Your task to perform on an android device: Search for usb-c to usb-a on newegg.com, select the first entry, add it to the cart, then select checkout. Image 0: 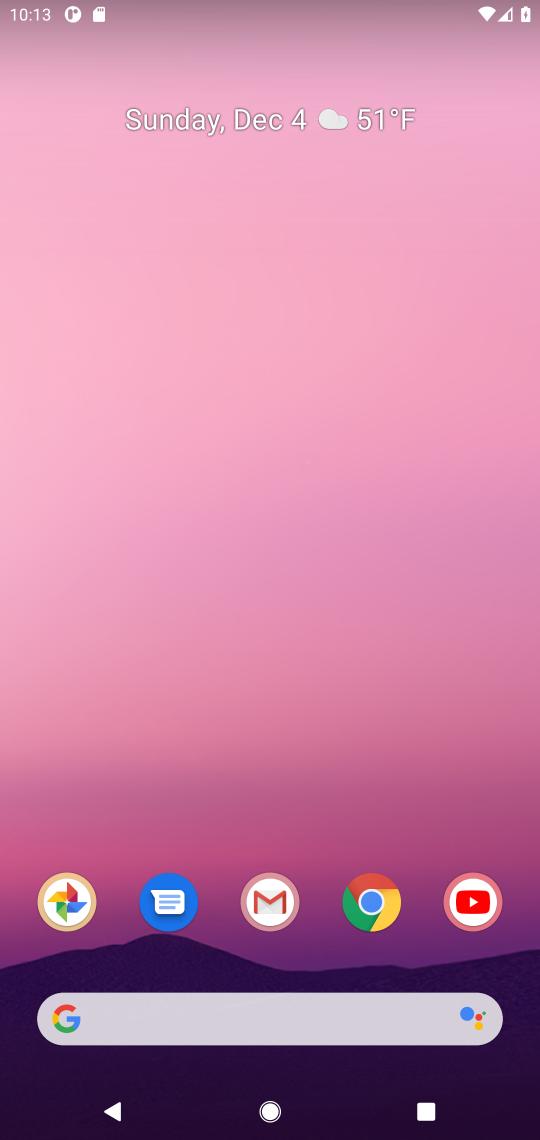
Step 0: click (370, 912)
Your task to perform on an android device: Search for usb-c to usb-a on newegg.com, select the first entry, add it to the cart, then select checkout. Image 1: 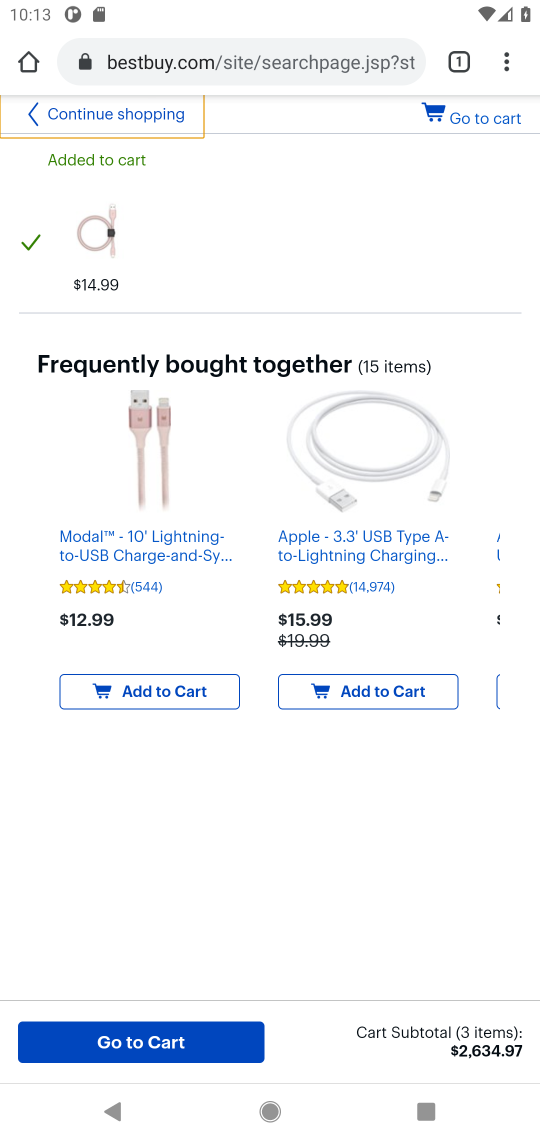
Step 1: click (257, 55)
Your task to perform on an android device: Search for usb-c to usb-a on newegg.com, select the first entry, add it to the cart, then select checkout. Image 2: 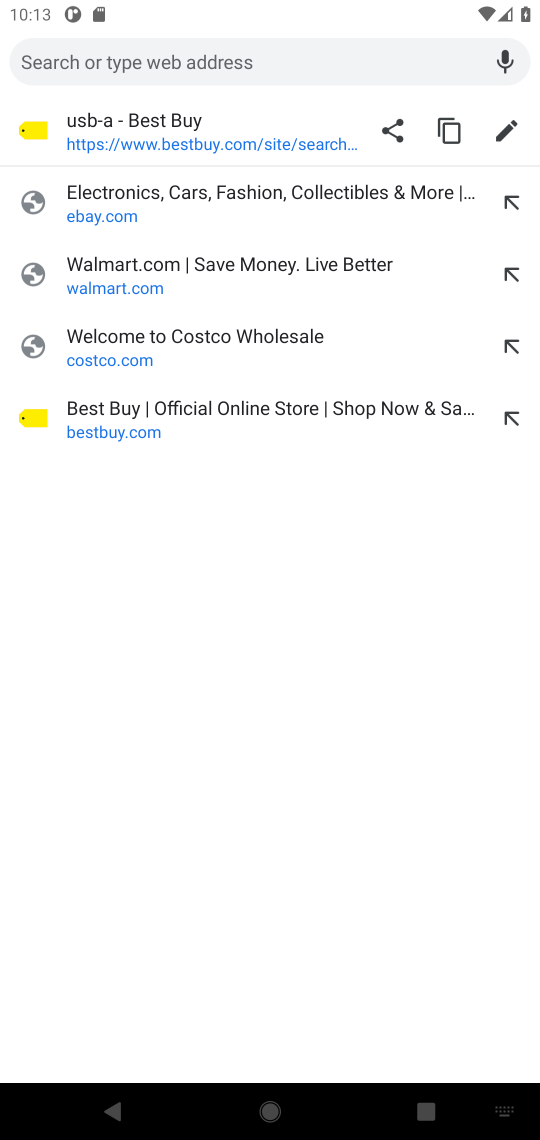
Step 2: type "neweeg"
Your task to perform on an android device: Search for usb-c to usb-a on newegg.com, select the first entry, add it to the cart, then select checkout. Image 3: 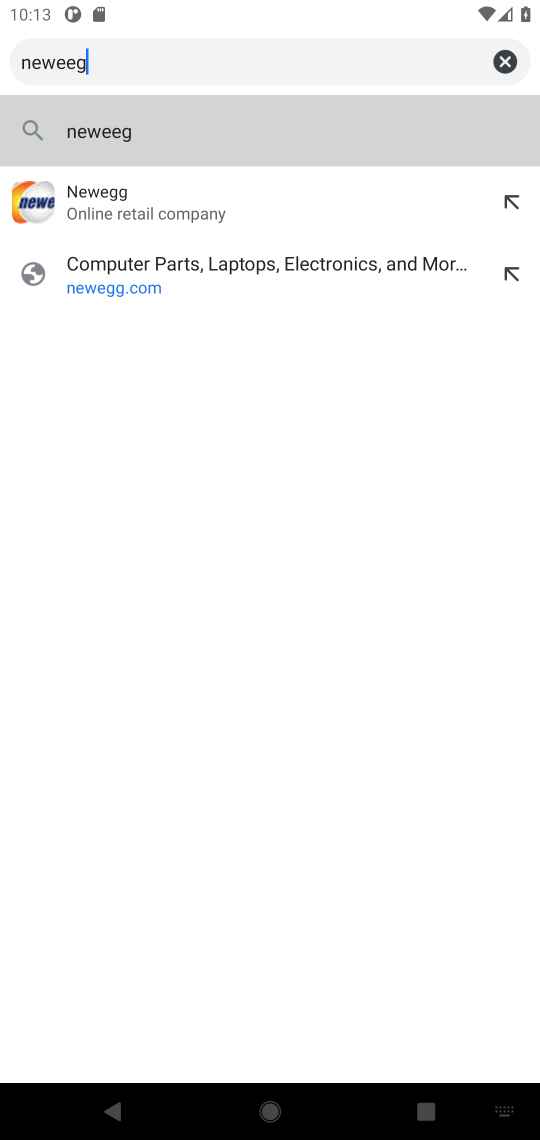
Step 3: click (160, 203)
Your task to perform on an android device: Search for usb-c to usb-a on newegg.com, select the first entry, add it to the cart, then select checkout. Image 4: 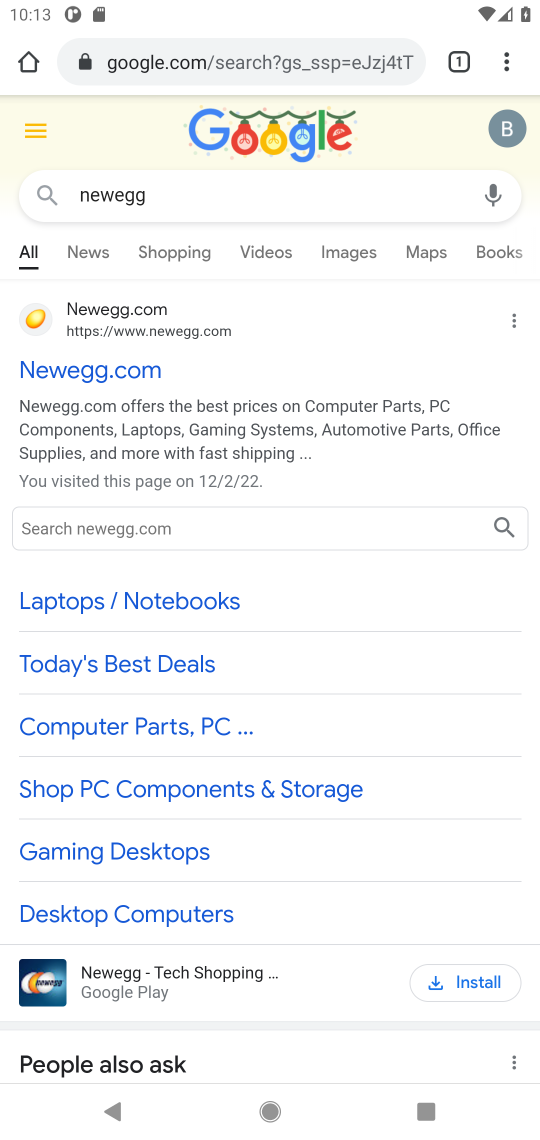
Step 4: click (130, 362)
Your task to perform on an android device: Search for usb-c to usb-a on newegg.com, select the first entry, add it to the cart, then select checkout. Image 5: 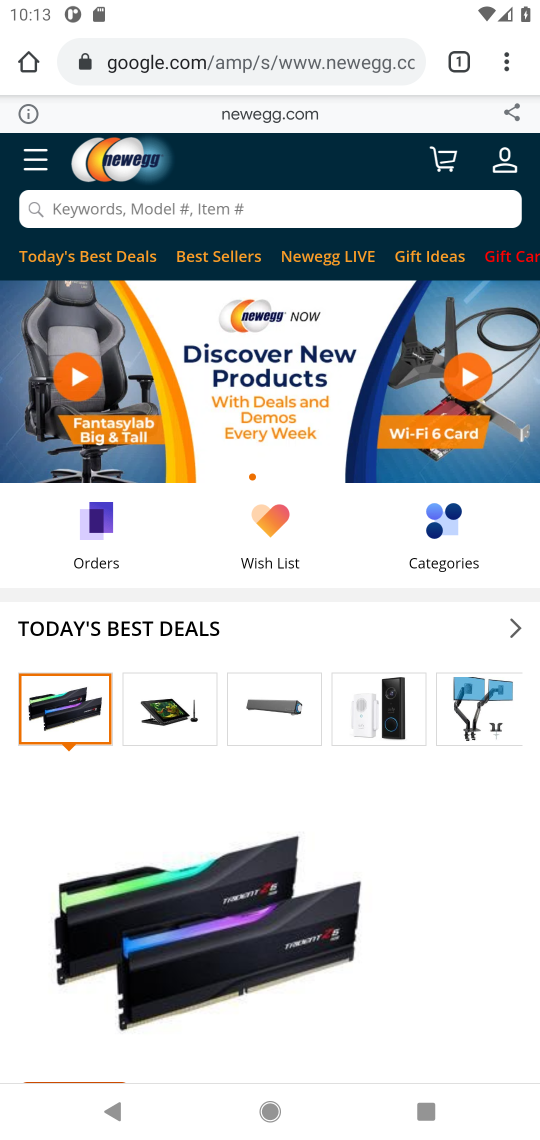
Step 5: click (270, 216)
Your task to perform on an android device: Search for usb-c to usb-a on newegg.com, select the first entry, add it to the cart, then select checkout. Image 6: 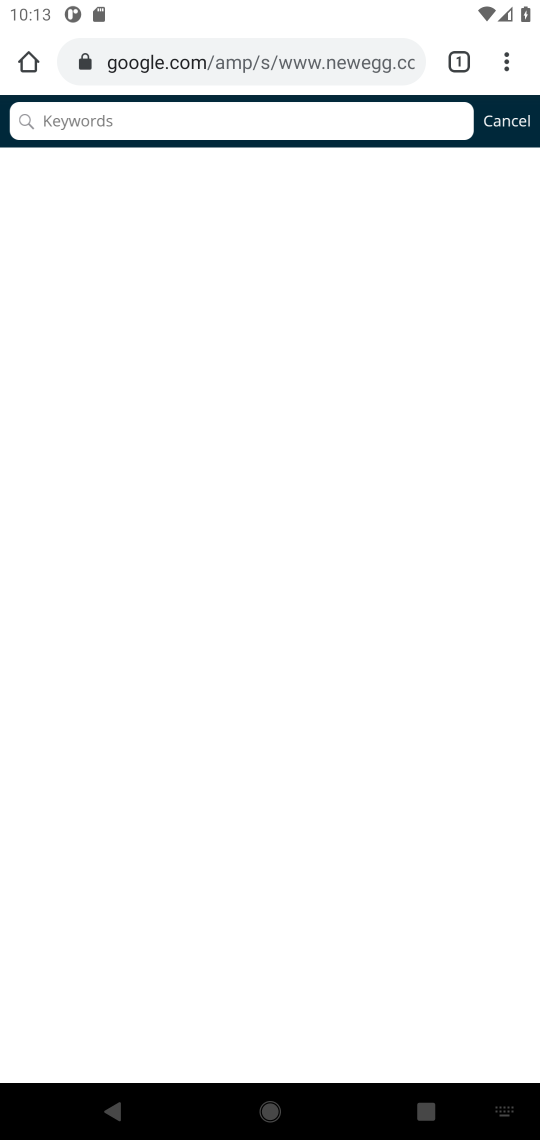
Step 6: type "usb-c to usb-a "
Your task to perform on an android device: Search for usb-c to usb-a on newegg.com, select the first entry, add it to the cart, then select checkout. Image 7: 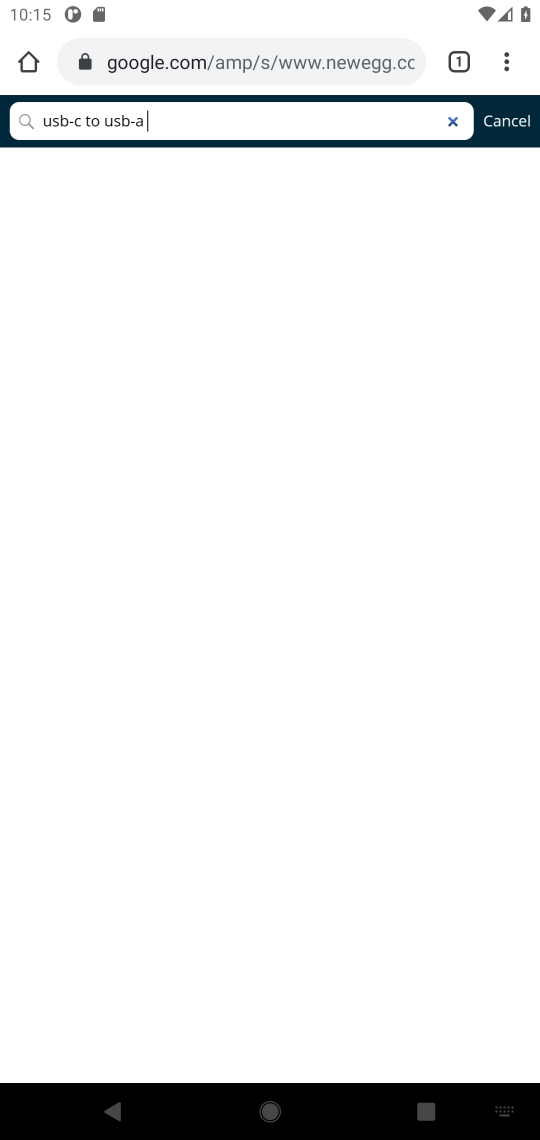
Step 7: task complete